Your task to perform on an android device: Go to Yahoo.com Image 0: 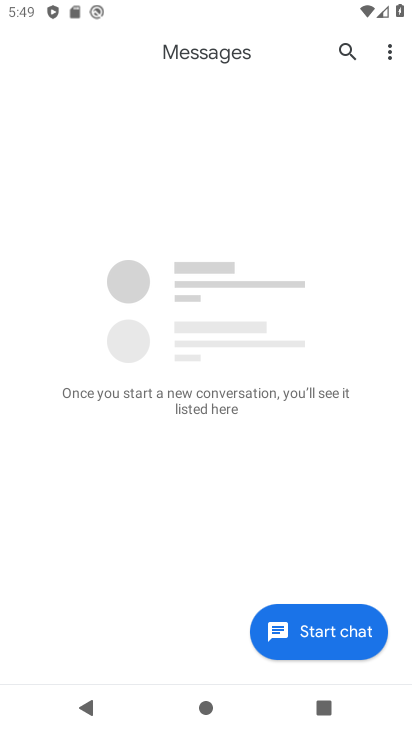
Step 0: press home button
Your task to perform on an android device: Go to Yahoo.com Image 1: 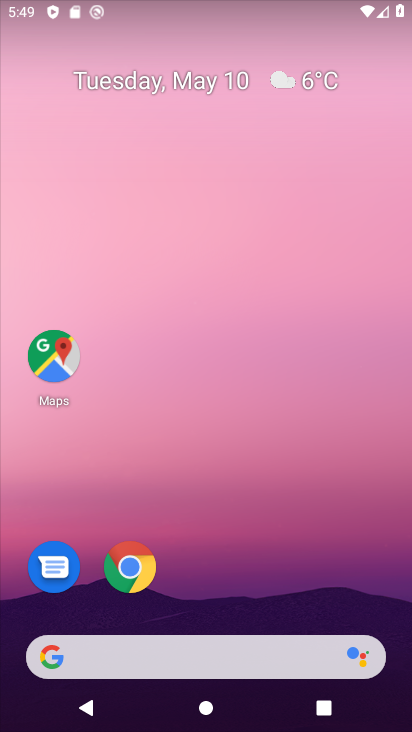
Step 1: drag from (269, 565) to (301, 224)
Your task to perform on an android device: Go to Yahoo.com Image 2: 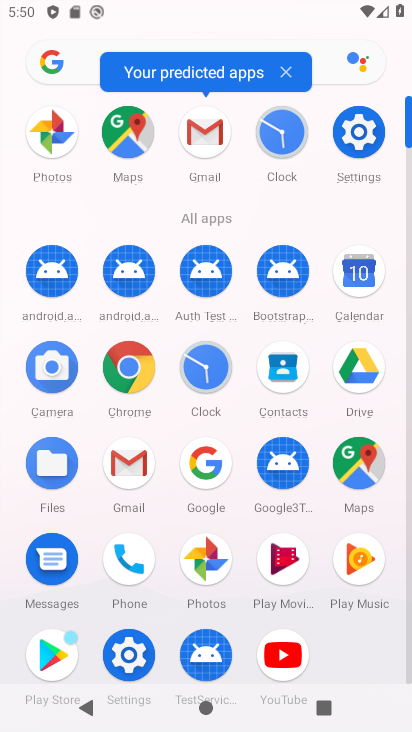
Step 2: click (125, 363)
Your task to perform on an android device: Go to Yahoo.com Image 3: 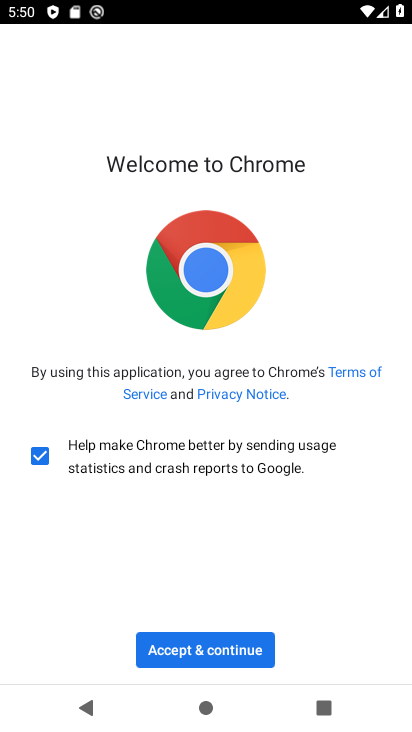
Step 3: click (199, 650)
Your task to perform on an android device: Go to Yahoo.com Image 4: 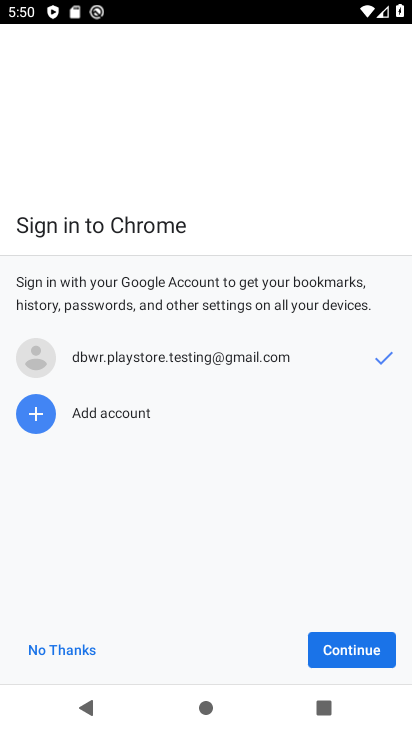
Step 4: click (310, 653)
Your task to perform on an android device: Go to Yahoo.com Image 5: 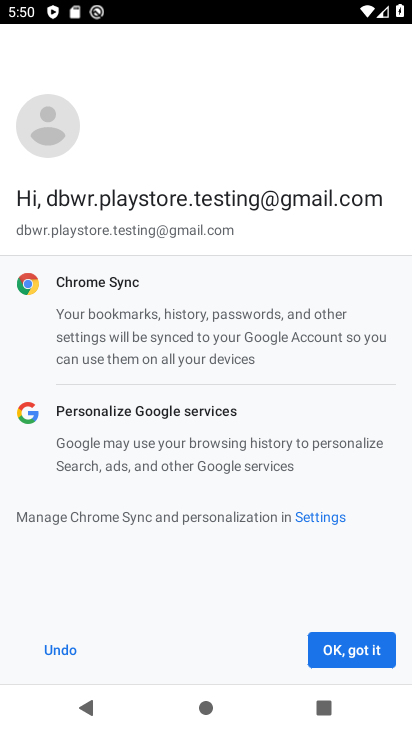
Step 5: click (356, 653)
Your task to perform on an android device: Go to Yahoo.com Image 6: 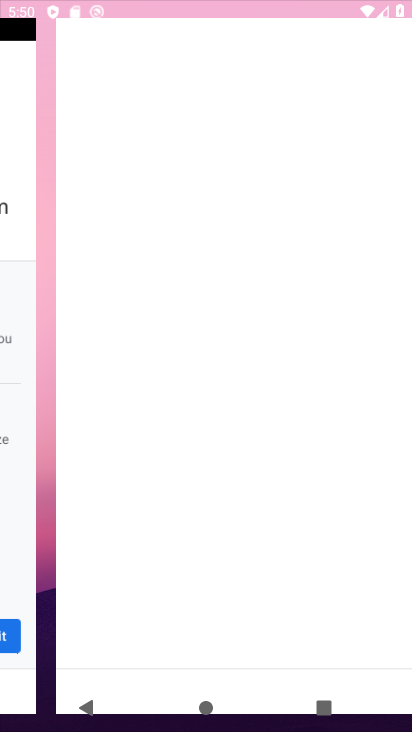
Step 6: click (356, 653)
Your task to perform on an android device: Go to Yahoo.com Image 7: 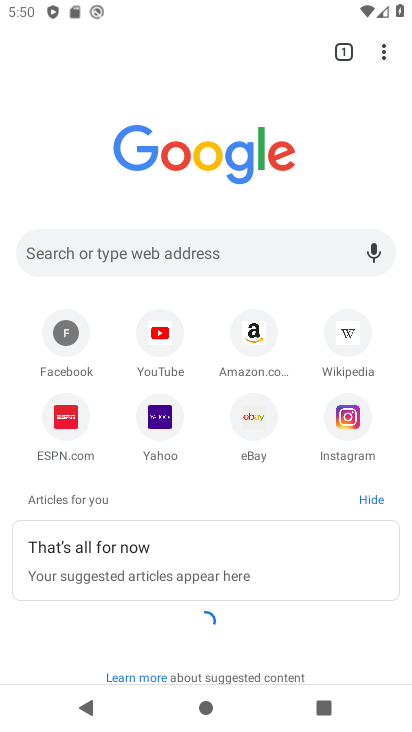
Step 7: click (159, 250)
Your task to perform on an android device: Go to Yahoo.com Image 8: 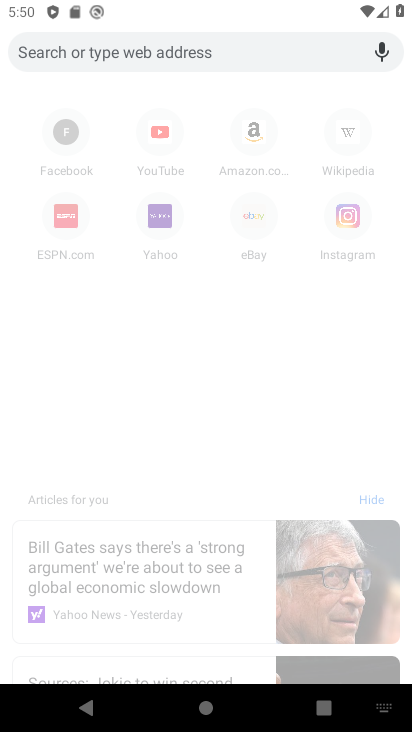
Step 8: type "Yahoo.com"
Your task to perform on an android device: Go to Yahoo.com Image 9: 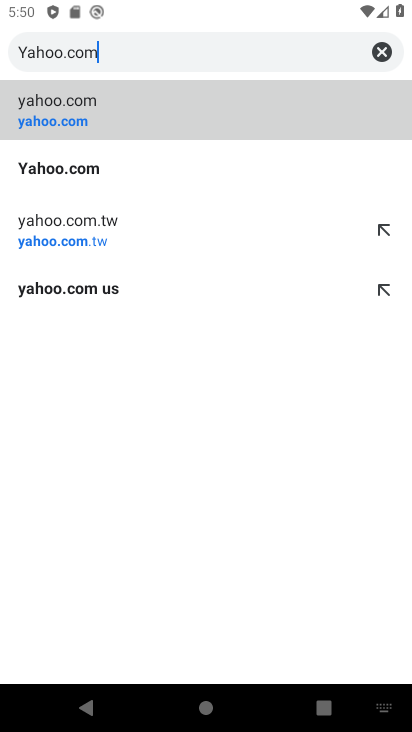
Step 9: click (41, 116)
Your task to perform on an android device: Go to Yahoo.com Image 10: 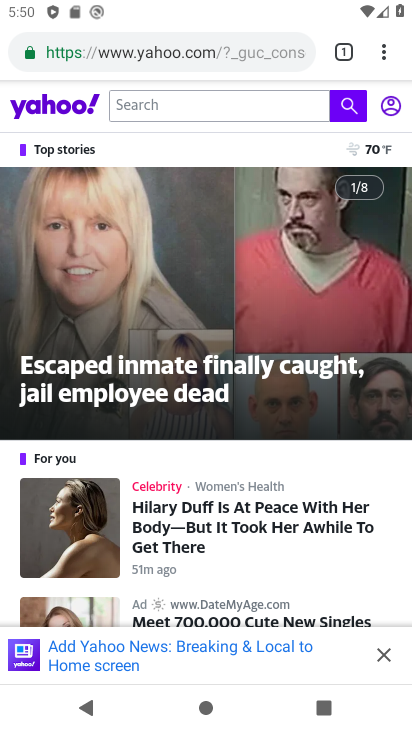
Step 10: task complete